Your task to perform on an android device: make emails show in primary in the gmail app Image 0: 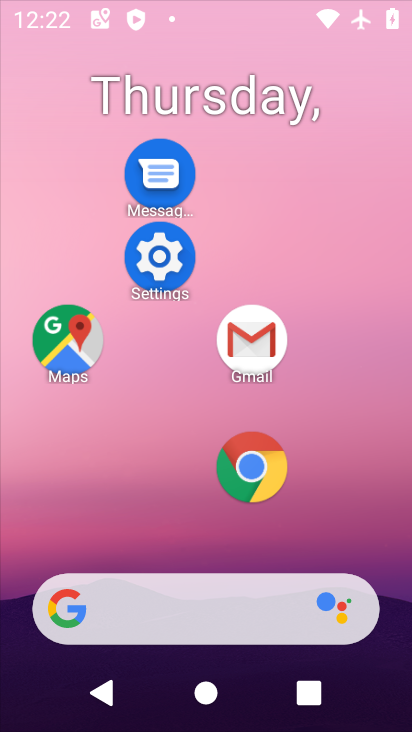
Step 0: drag from (220, 462) to (241, 128)
Your task to perform on an android device: make emails show in primary in the gmail app Image 1: 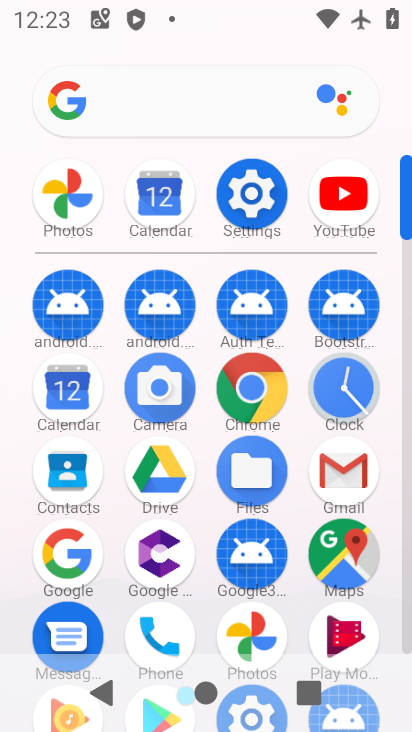
Step 1: click (323, 476)
Your task to perform on an android device: make emails show in primary in the gmail app Image 2: 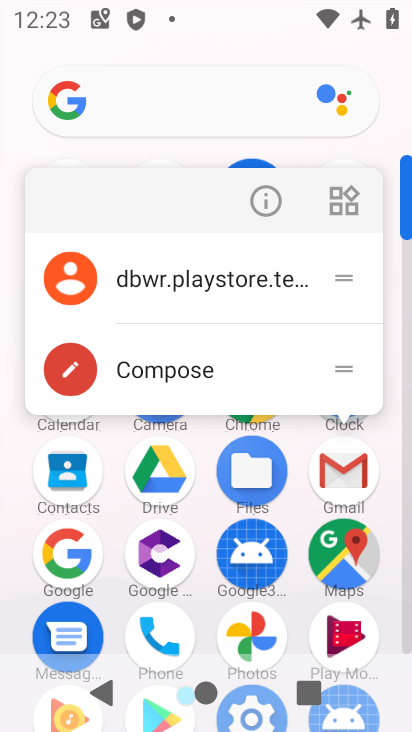
Step 2: click (257, 197)
Your task to perform on an android device: make emails show in primary in the gmail app Image 3: 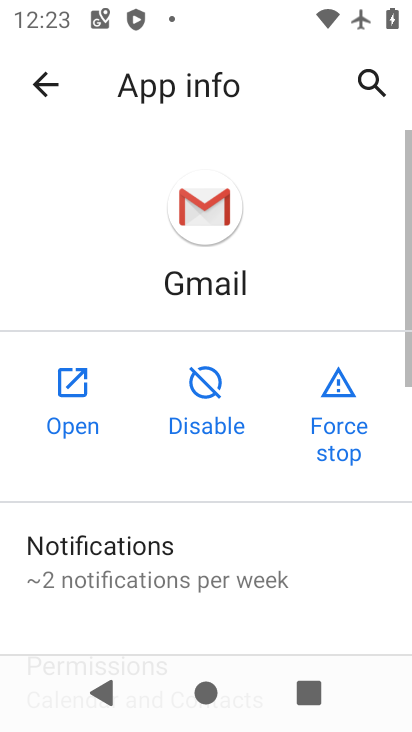
Step 3: click (82, 365)
Your task to perform on an android device: make emails show in primary in the gmail app Image 4: 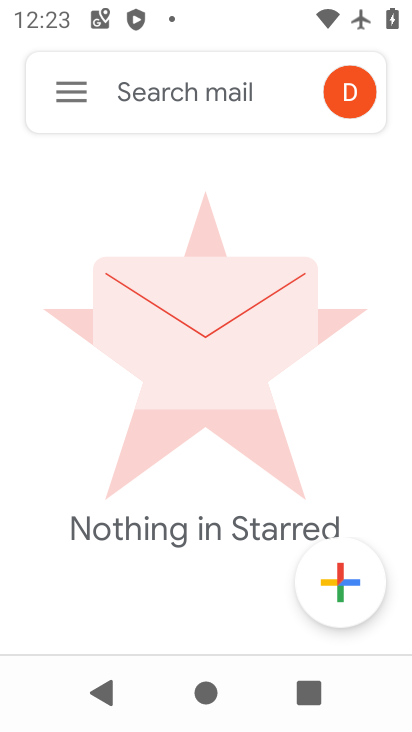
Step 4: click (57, 89)
Your task to perform on an android device: make emails show in primary in the gmail app Image 5: 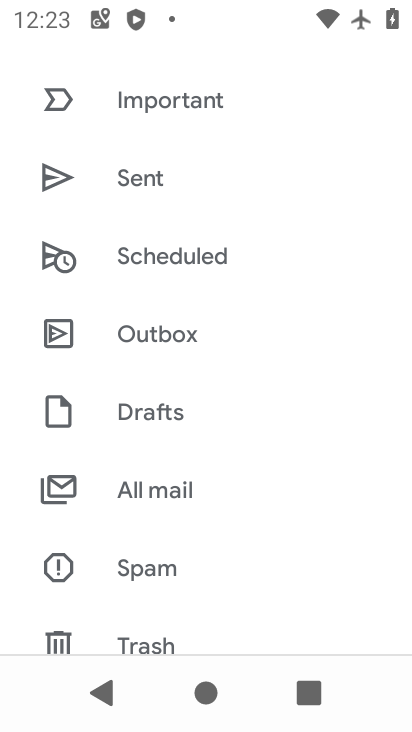
Step 5: drag from (129, 138) to (231, 725)
Your task to perform on an android device: make emails show in primary in the gmail app Image 6: 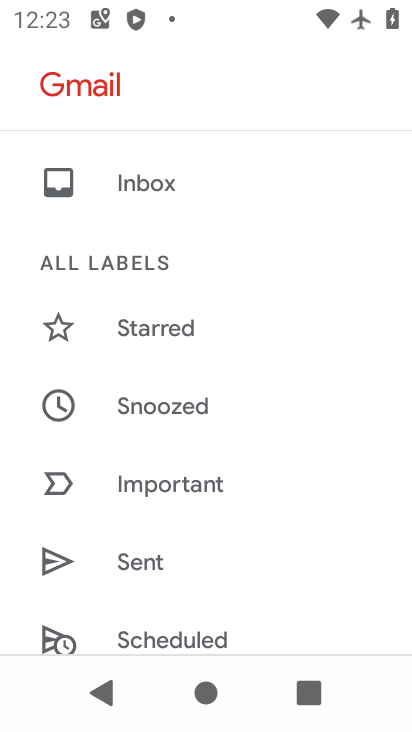
Step 6: click (164, 211)
Your task to perform on an android device: make emails show in primary in the gmail app Image 7: 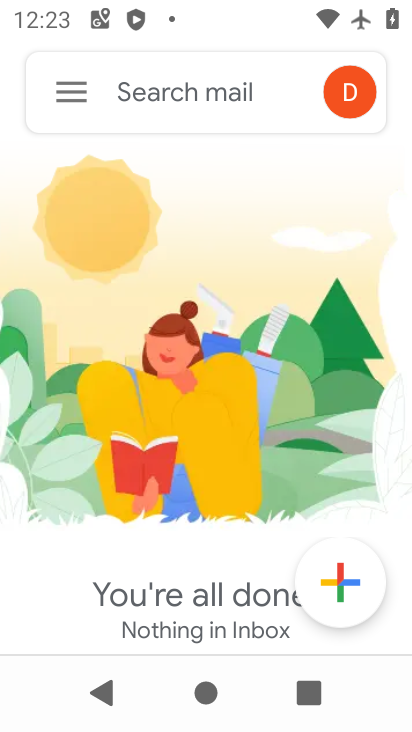
Step 7: drag from (194, 275) to (288, 612)
Your task to perform on an android device: make emails show in primary in the gmail app Image 8: 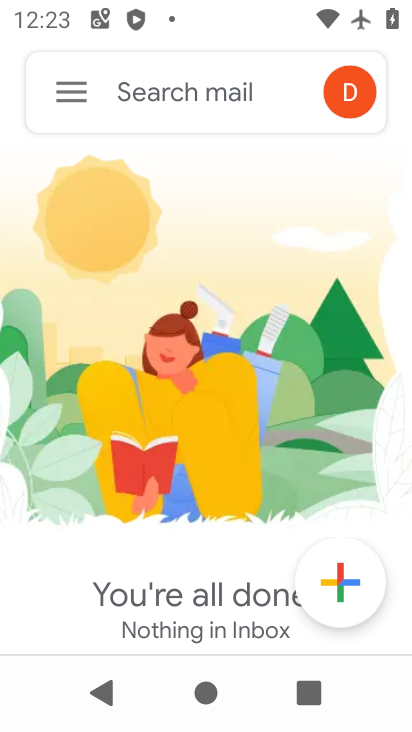
Step 8: click (86, 98)
Your task to perform on an android device: make emails show in primary in the gmail app Image 9: 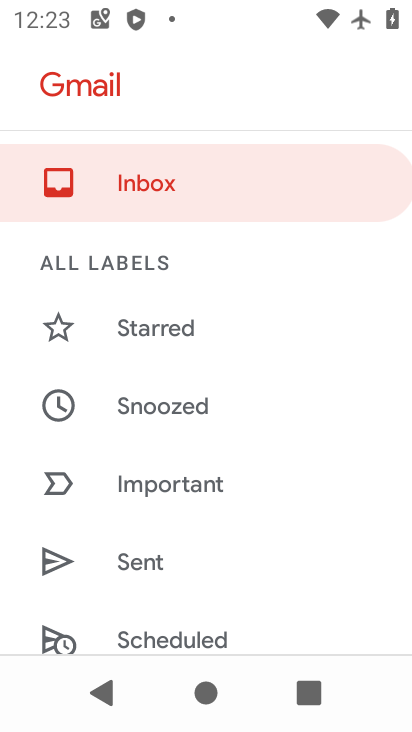
Step 9: click (168, 192)
Your task to perform on an android device: make emails show in primary in the gmail app Image 10: 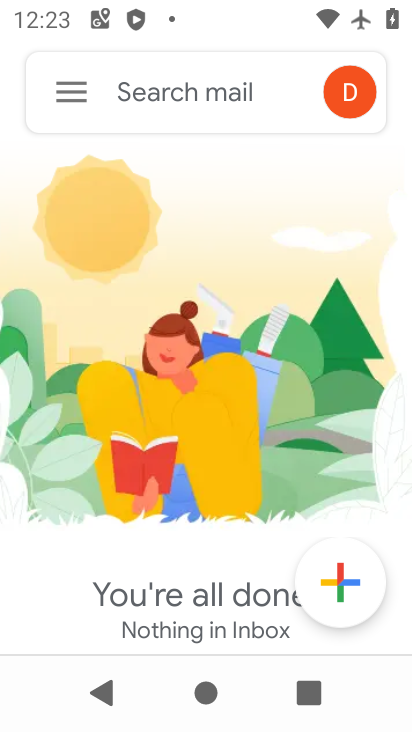
Step 10: drag from (153, 226) to (266, 486)
Your task to perform on an android device: make emails show in primary in the gmail app Image 11: 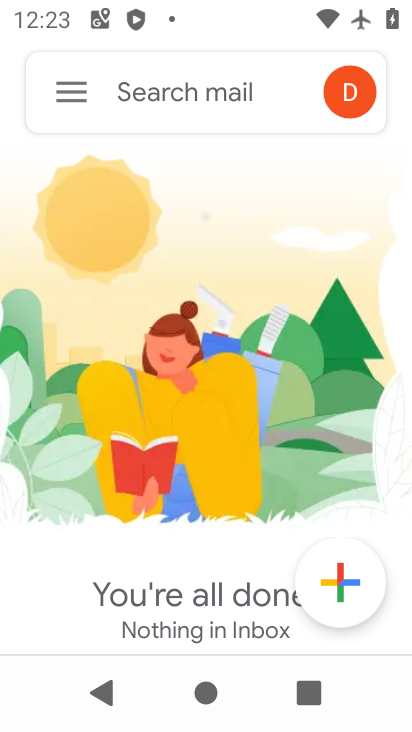
Step 11: click (70, 94)
Your task to perform on an android device: make emails show in primary in the gmail app Image 12: 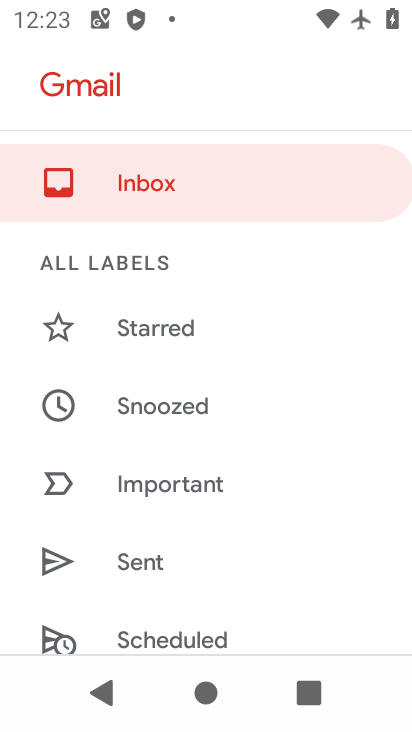
Step 12: click (225, 185)
Your task to perform on an android device: make emails show in primary in the gmail app Image 13: 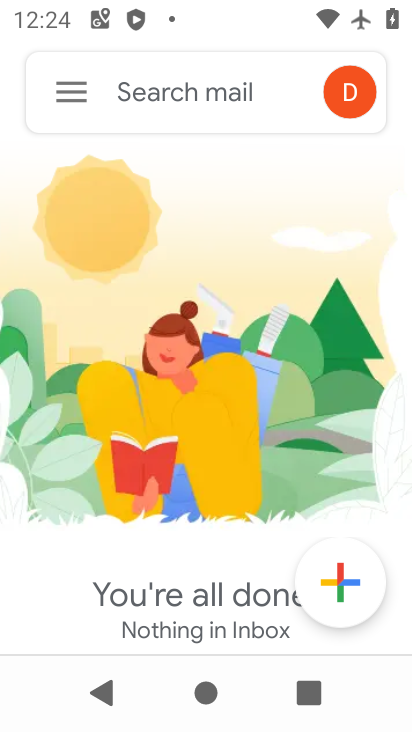
Step 13: drag from (195, 606) to (203, 278)
Your task to perform on an android device: make emails show in primary in the gmail app Image 14: 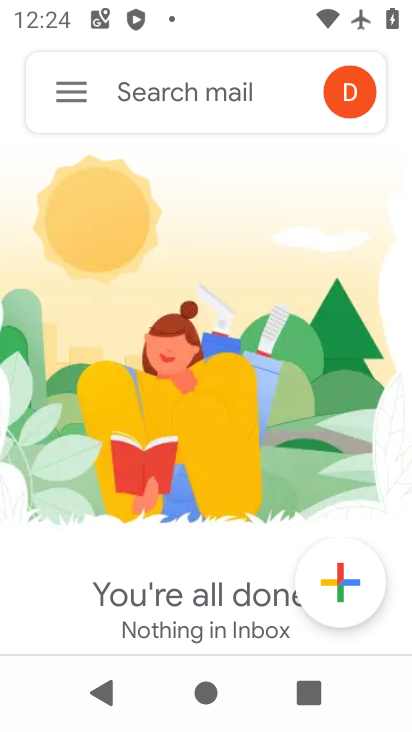
Step 14: drag from (210, 546) to (249, 309)
Your task to perform on an android device: make emails show in primary in the gmail app Image 15: 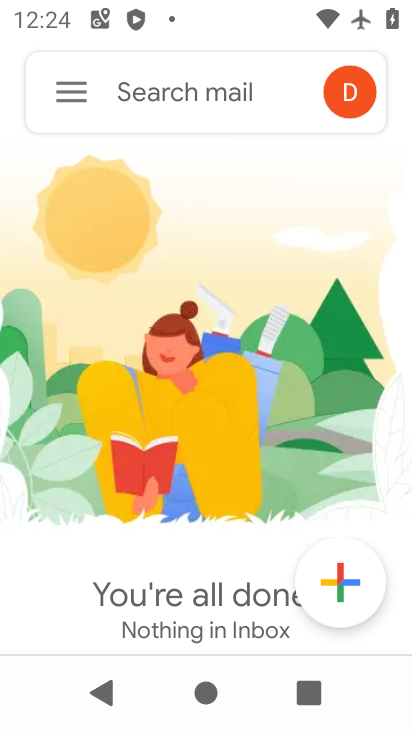
Step 15: drag from (231, 319) to (253, 160)
Your task to perform on an android device: make emails show in primary in the gmail app Image 16: 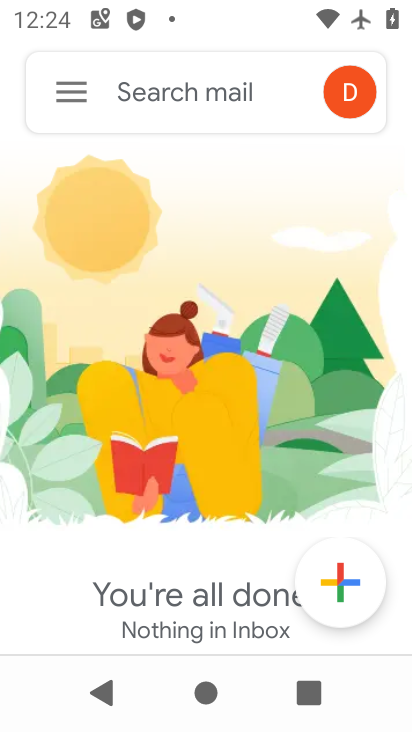
Step 16: click (63, 103)
Your task to perform on an android device: make emails show in primary in the gmail app Image 17: 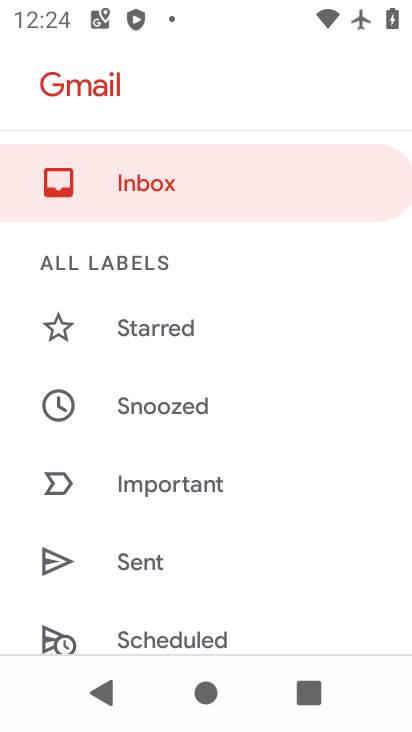
Step 17: click (161, 208)
Your task to perform on an android device: make emails show in primary in the gmail app Image 18: 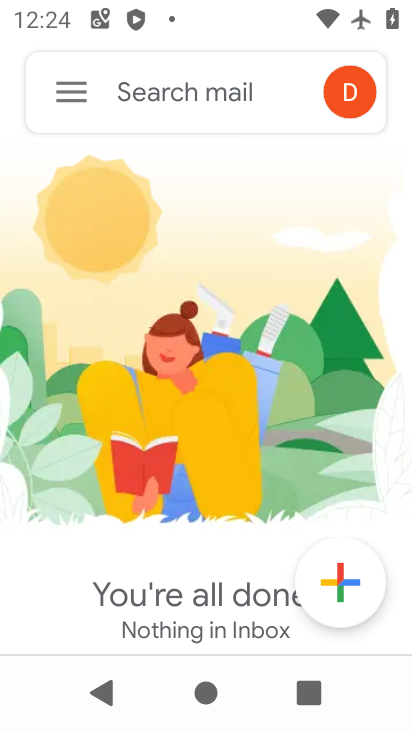
Step 18: task complete